Your task to perform on an android device: What's the weather? Image 0: 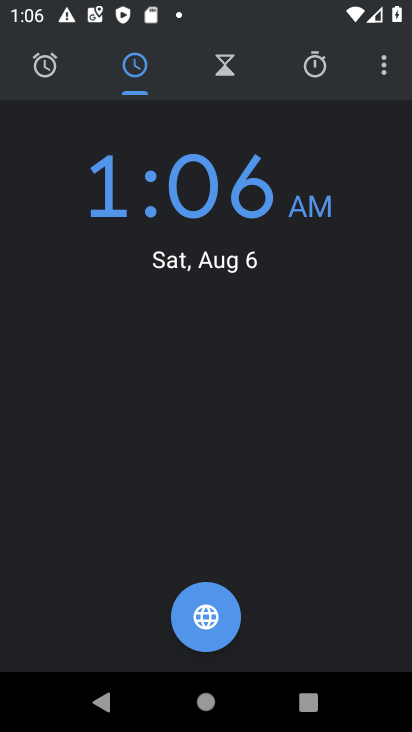
Step 0: press home button
Your task to perform on an android device: What's the weather? Image 1: 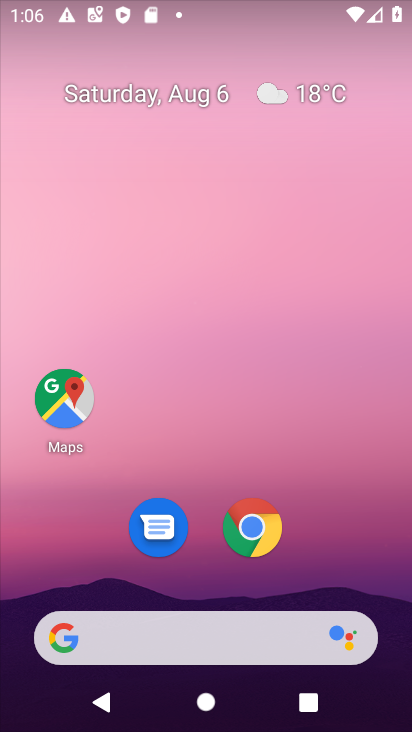
Step 1: drag from (198, 555) to (252, 114)
Your task to perform on an android device: What's the weather? Image 2: 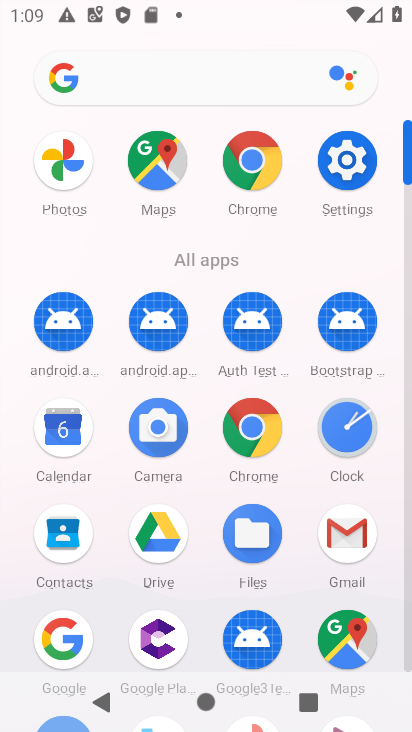
Step 2: click (265, 435)
Your task to perform on an android device: What's the weather? Image 3: 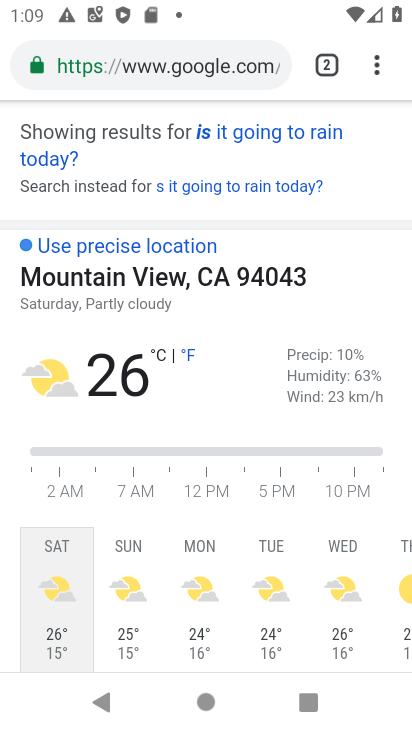
Step 3: click (324, 80)
Your task to perform on an android device: What's the weather? Image 4: 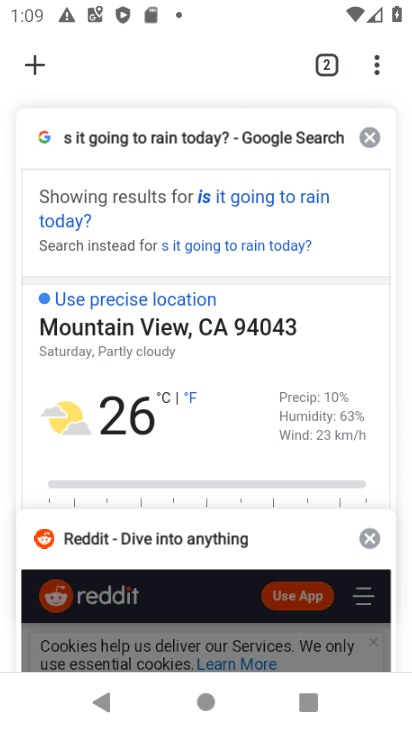
Step 4: click (200, 353)
Your task to perform on an android device: What's the weather? Image 5: 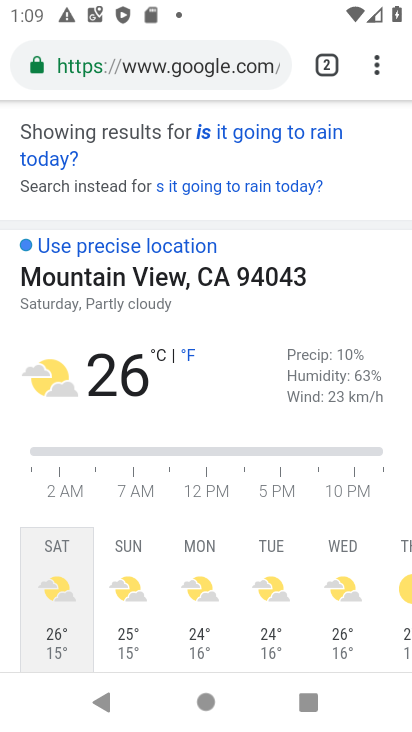
Step 5: task complete